Your task to perform on an android device: Go to eBay Image 0: 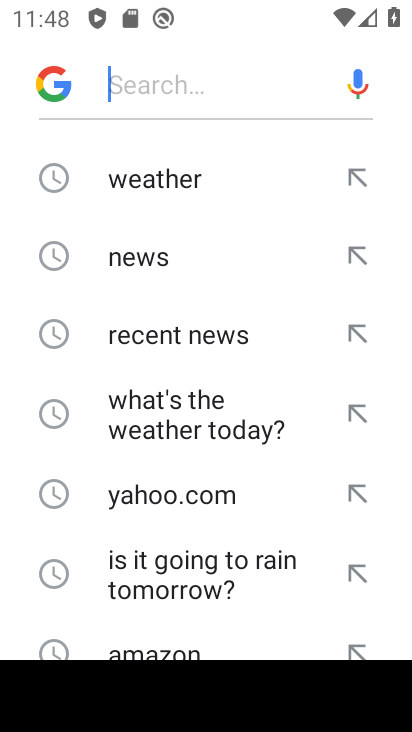
Step 0: press home button
Your task to perform on an android device: Go to eBay Image 1: 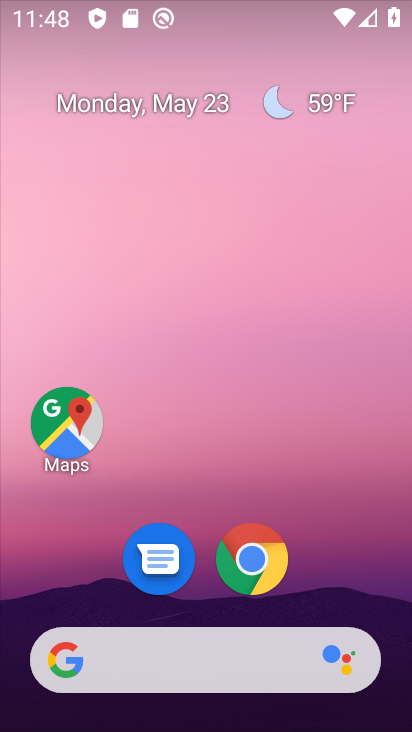
Step 1: drag from (391, 652) to (281, 23)
Your task to perform on an android device: Go to eBay Image 2: 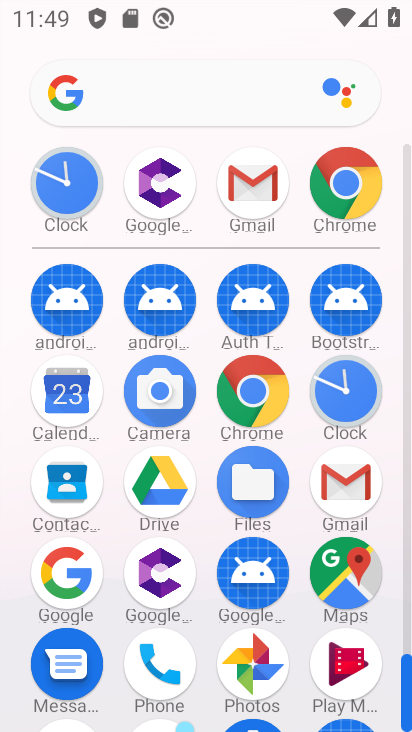
Step 2: click (69, 597)
Your task to perform on an android device: Go to eBay Image 3: 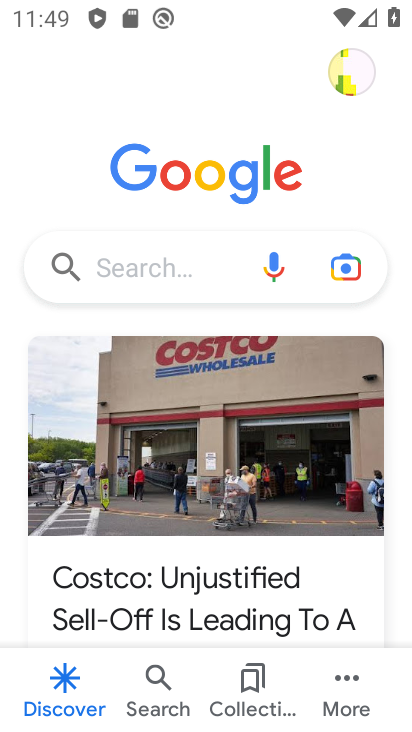
Step 3: click (172, 279)
Your task to perform on an android device: Go to eBay Image 4: 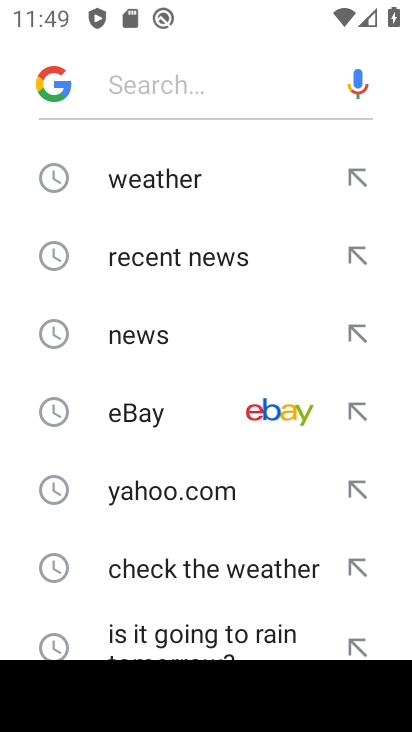
Step 4: drag from (100, 604) to (139, 454)
Your task to perform on an android device: Go to eBay Image 5: 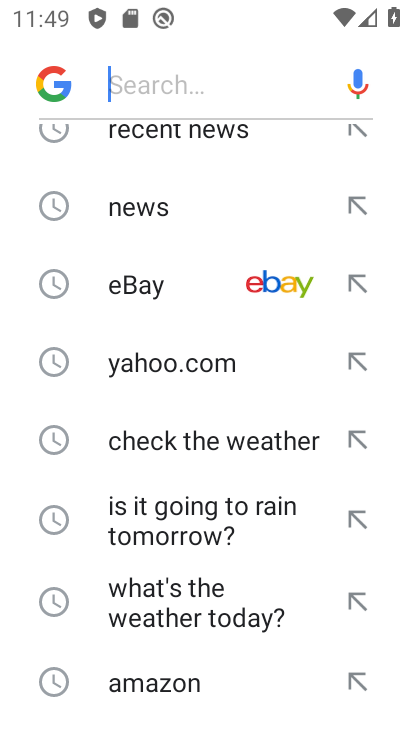
Step 5: click (143, 302)
Your task to perform on an android device: Go to eBay Image 6: 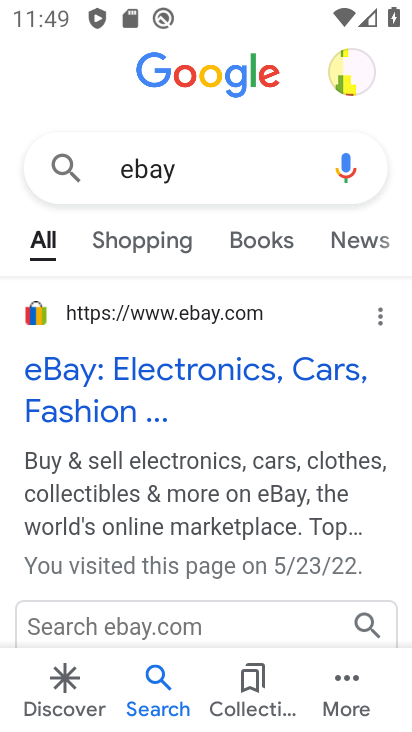
Step 6: task complete